Your task to perform on an android device: turn notification dots on Image 0: 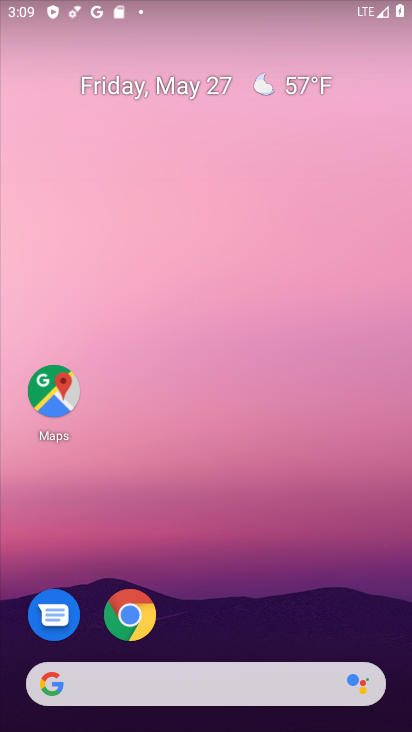
Step 0: drag from (211, 534) to (349, 14)
Your task to perform on an android device: turn notification dots on Image 1: 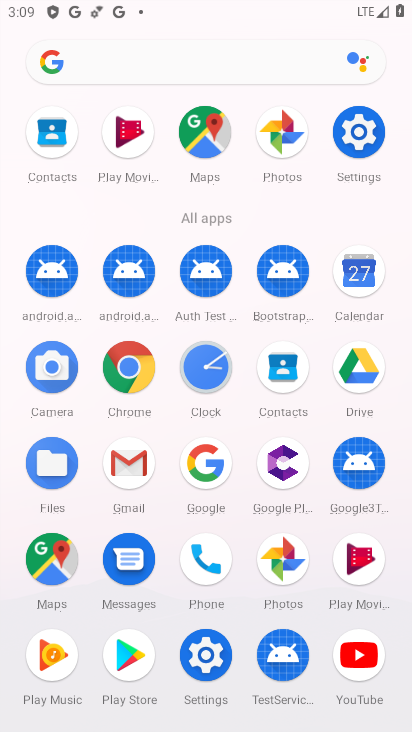
Step 1: click (353, 238)
Your task to perform on an android device: turn notification dots on Image 2: 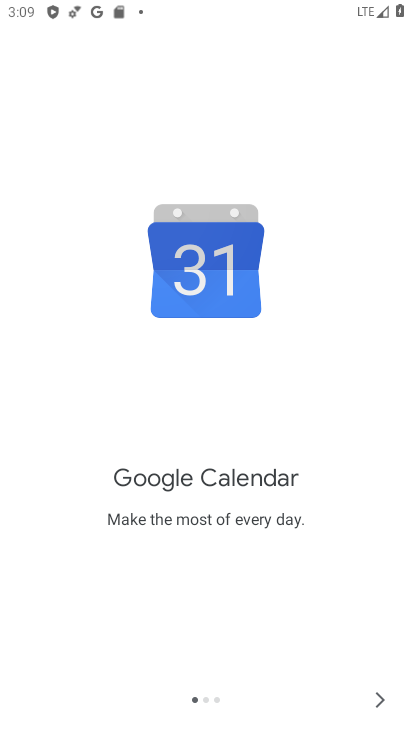
Step 2: press back button
Your task to perform on an android device: turn notification dots on Image 3: 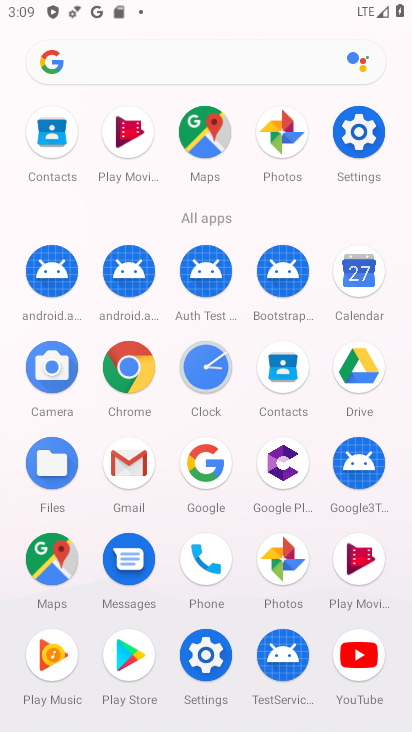
Step 3: click (353, 139)
Your task to perform on an android device: turn notification dots on Image 4: 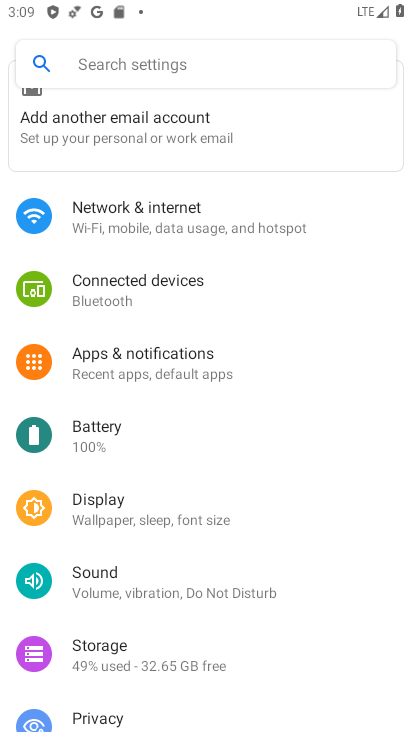
Step 4: click (155, 361)
Your task to perform on an android device: turn notification dots on Image 5: 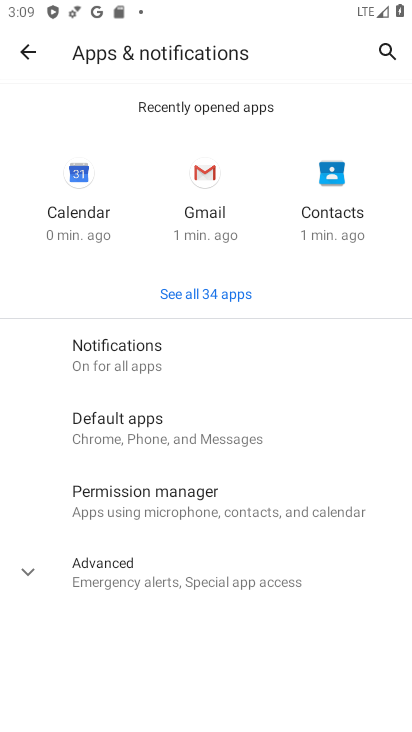
Step 5: click (122, 347)
Your task to perform on an android device: turn notification dots on Image 6: 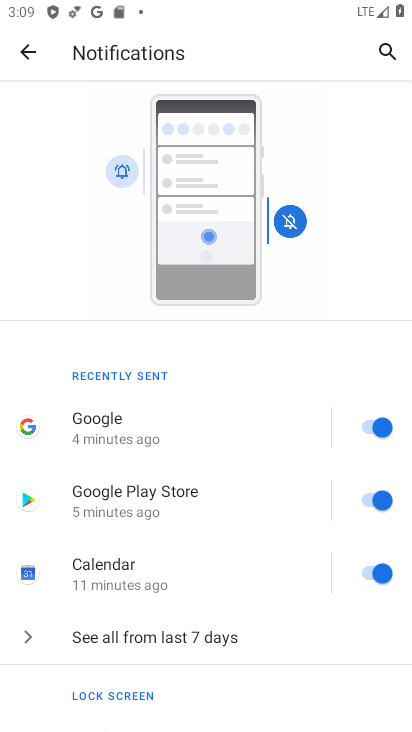
Step 6: drag from (189, 502) to (218, 332)
Your task to perform on an android device: turn notification dots on Image 7: 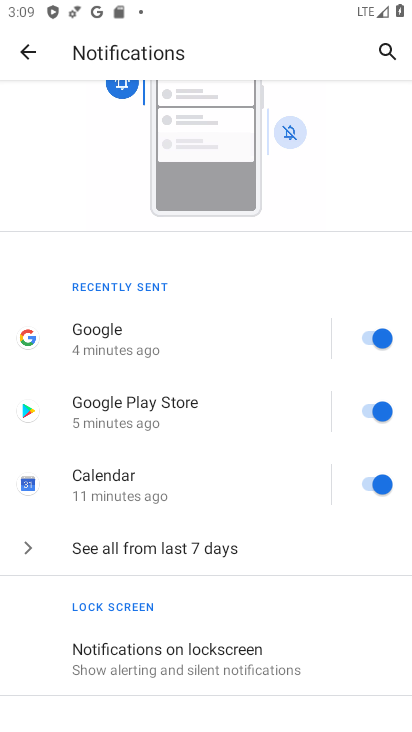
Step 7: click (131, 661)
Your task to perform on an android device: turn notification dots on Image 8: 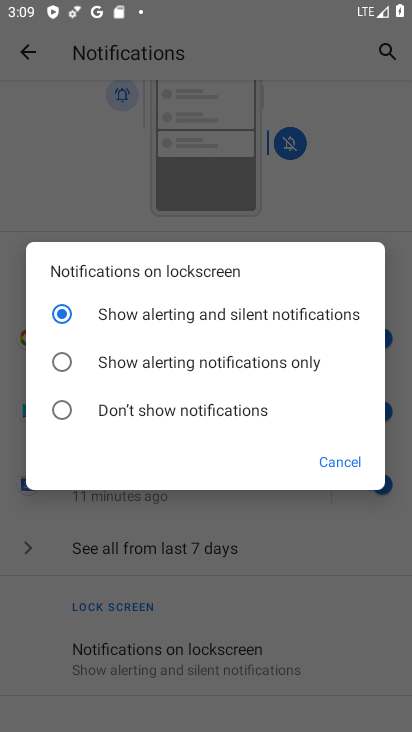
Step 8: click (333, 458)
Your task to perform on an android device: turn notification dots on Image 9: 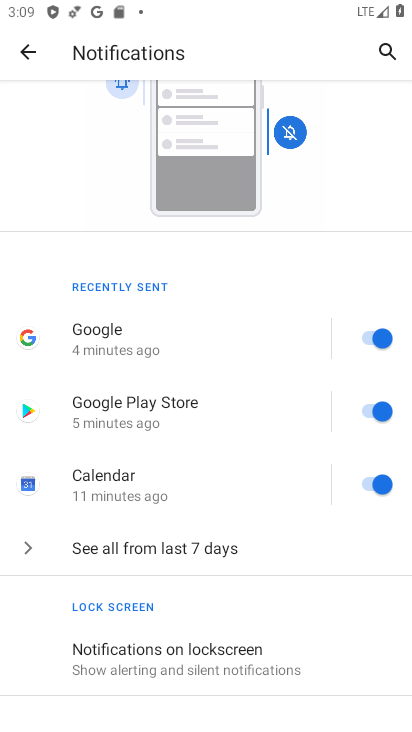
Step 9: drag from (178, 637) to (263, 236)
Your task to perform on an android device: turn notification dots on Image 10: 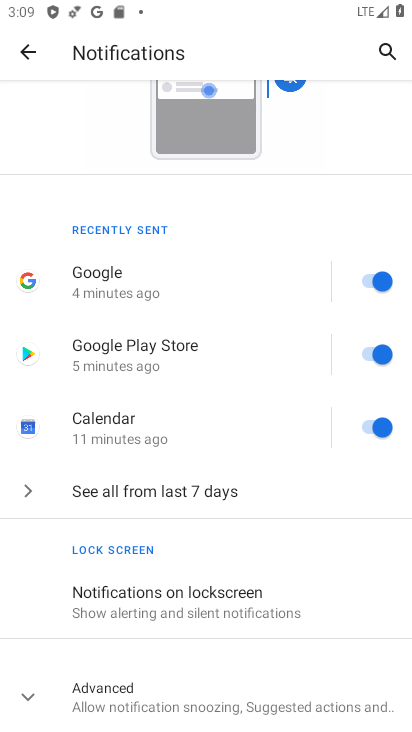
Step 10: click (133, 721)
Your task to perform on an android device: turn notification dots on Image 11: 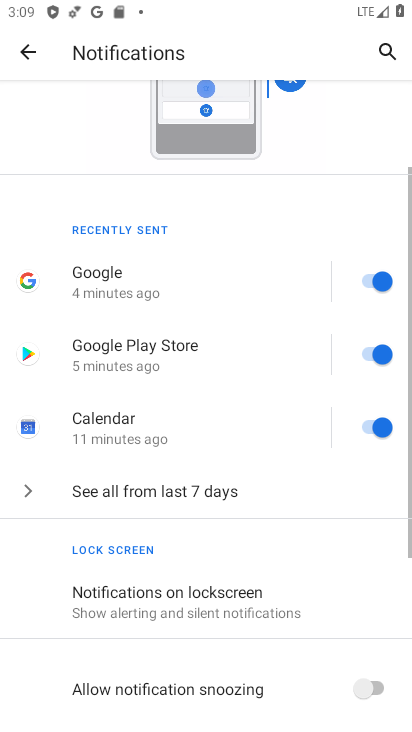
Step 11: drag from (211, 582) to (288, 382)
Your task to perform on an android device: turn notification dots on Image 12: 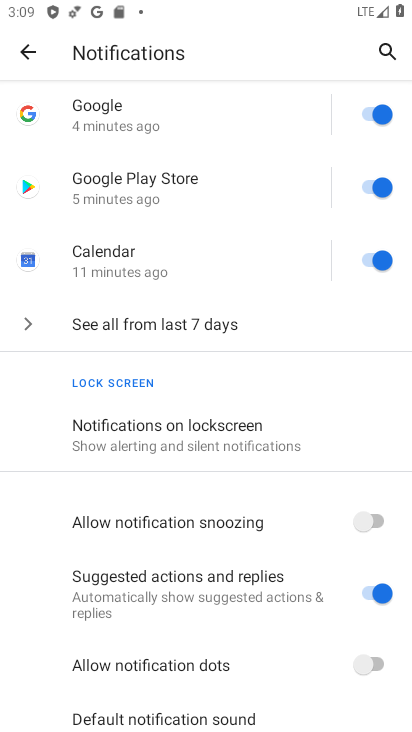
Step 12: click (380, 660)
Your task to perform on an android device: turn notification dots on Image 13: 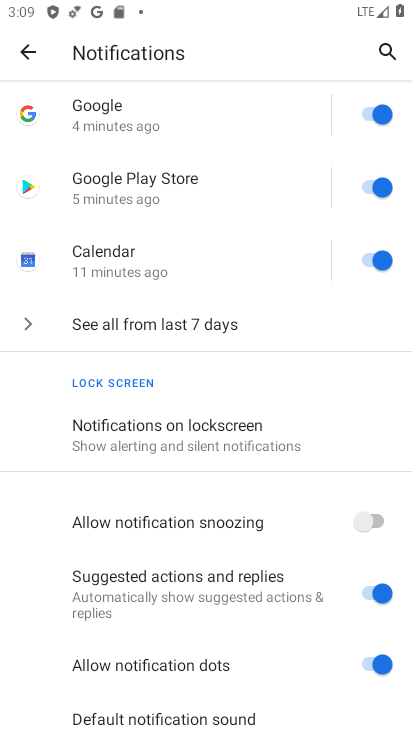
Step 13: task complete